Your task to perform on an android device: make emails show in primary in the gmail app Image 0: 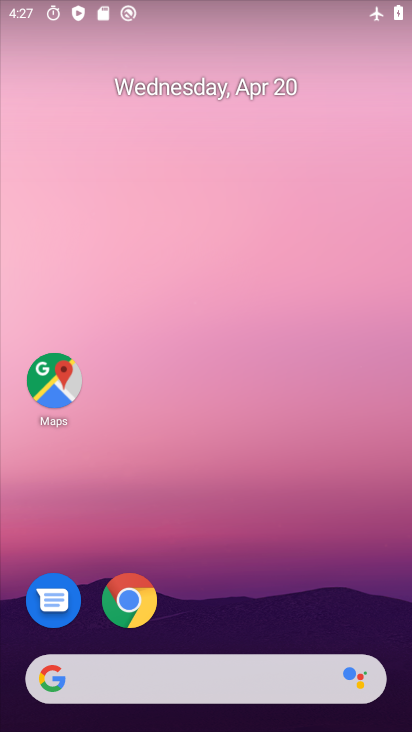
Step 0: drag from (270, 629) to (272, 223)
Your task to perform on an android device: make emails show in primary in the gmail app Image 1: 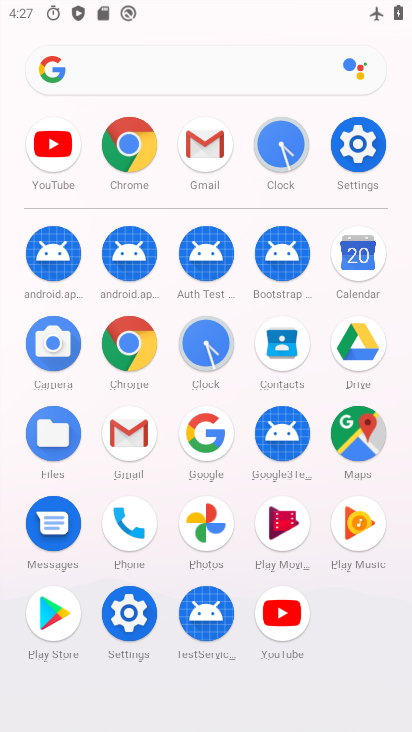
Step 1: click (202, 145)
Your task to perform on an android device: make emails show in primary in the gmail app Image 2: 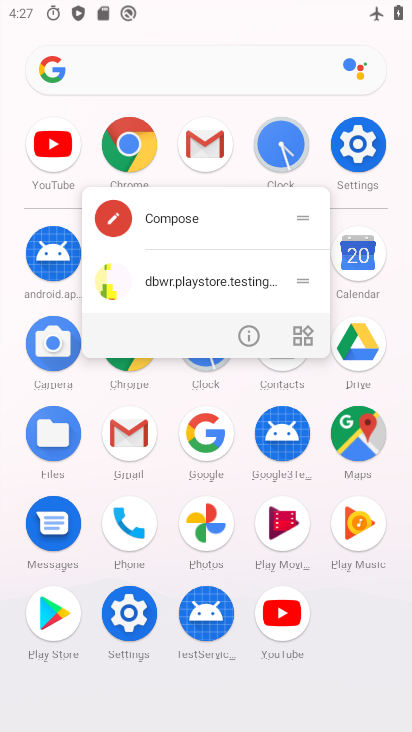
Step 2: click (201, 146)
Your task to perform on an android device: make emails show in primary in the gmail app Image 3: 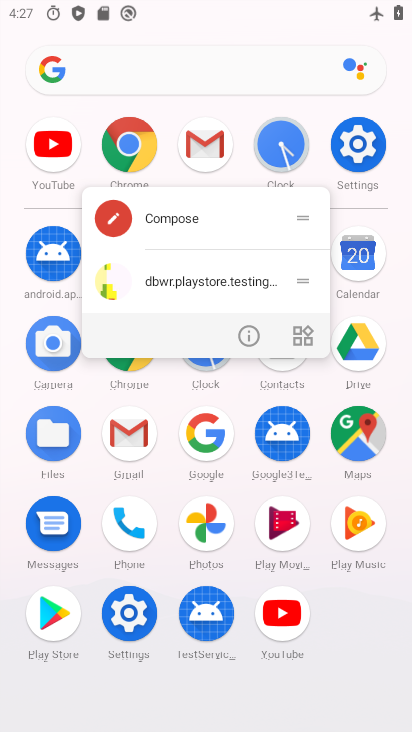
Step 3: click (130, 429)
Your task to perform on an android device: make emails show in primary in the gmail app Image 4: 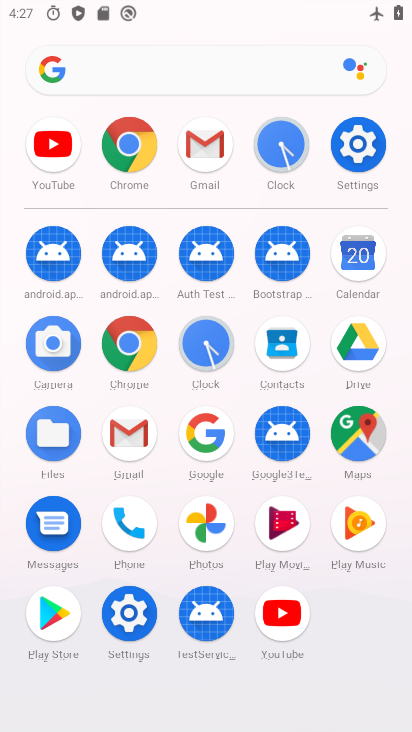
Step 4: click (130, 429)
Your task to perform on an android device: make emails show in primary in the gmail app Image 5: 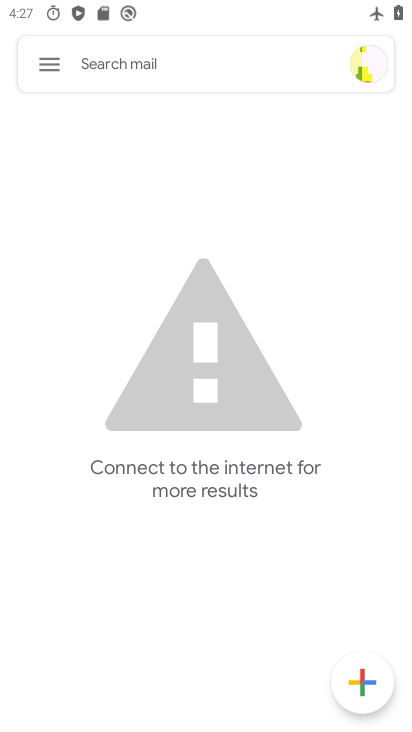
Step 5: task complete